Your task to perform on an android device: Go to wifi settings Image 0: 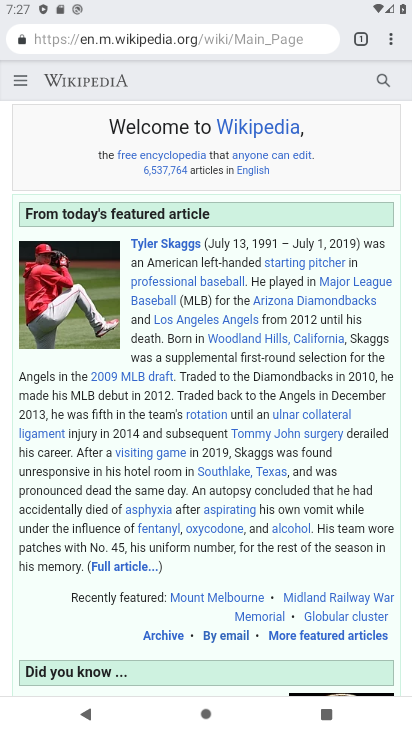
Step 0: press home button
Your task to perform on an android device: Go to wifi settings Image 1: 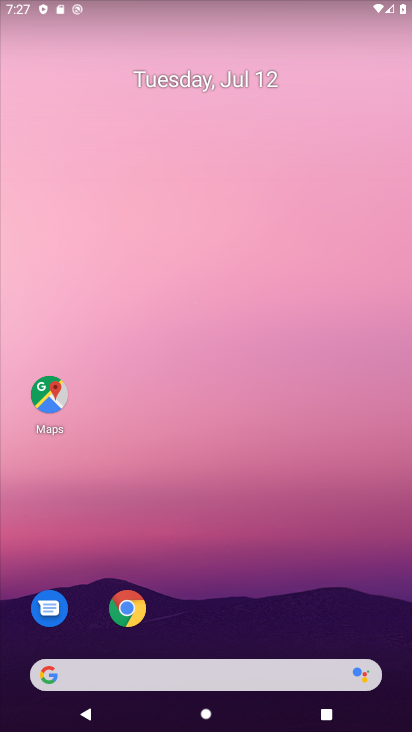
Step 1: drag from (150, 671) to (342, 273)
Your task to perform on an android device: Go to wifi settings Image 2: 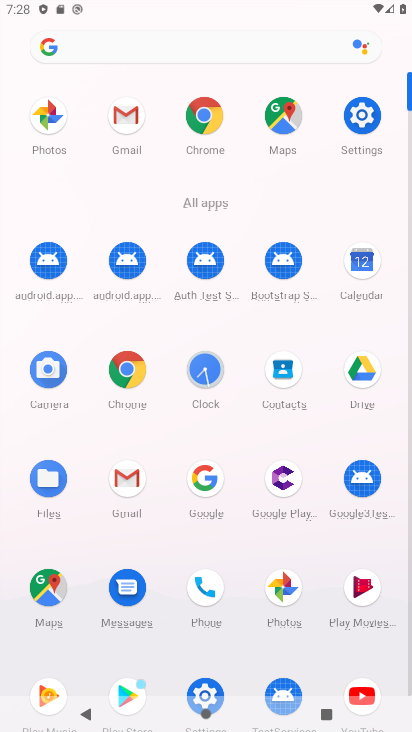
Step 2: click (355, 121)
Your task to perform on an android device: Go to wifi settings Image 3: 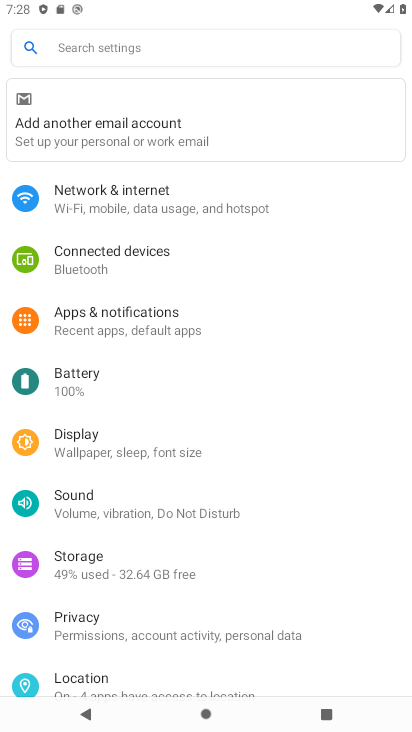
Step 3: click (130, 191)
Your task to perform on an android device: Go to wifi settings Image 4: 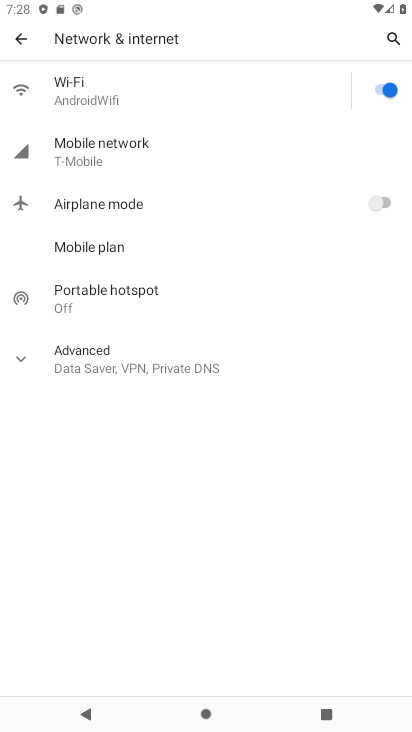
Step 4: click (101, 98)
Your task to perform on an android device: Go to wifi settings Image 5: 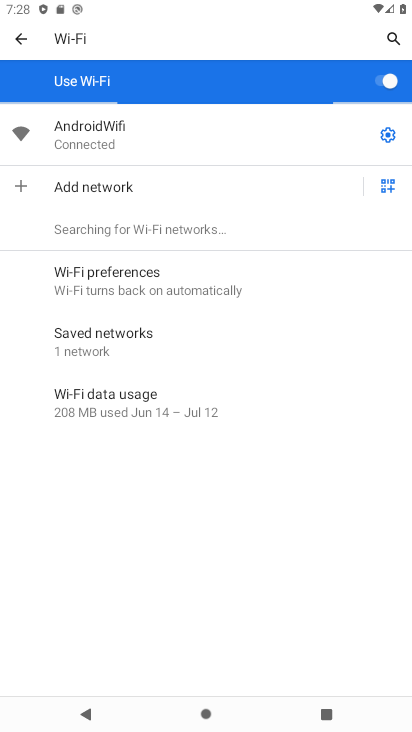
Step 5: task complete